Your task to perform on an android device: What's the latest news in space exploration? Image 0: 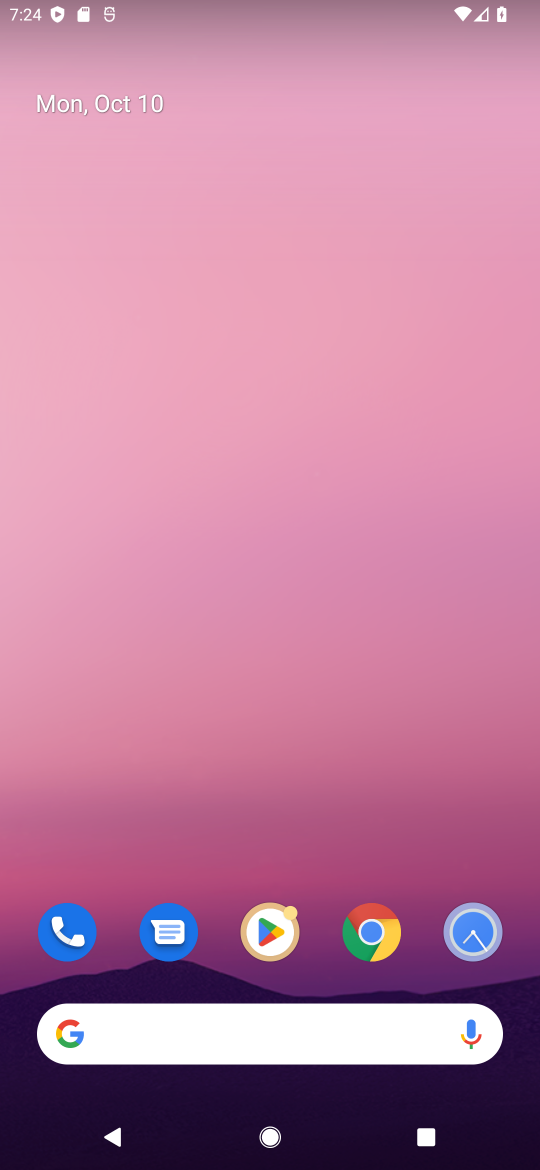
Step 0: drag from (329, 989) to (271, 117)
Your task to perform on an android device: What's the latest news in space exploration? Image 1: 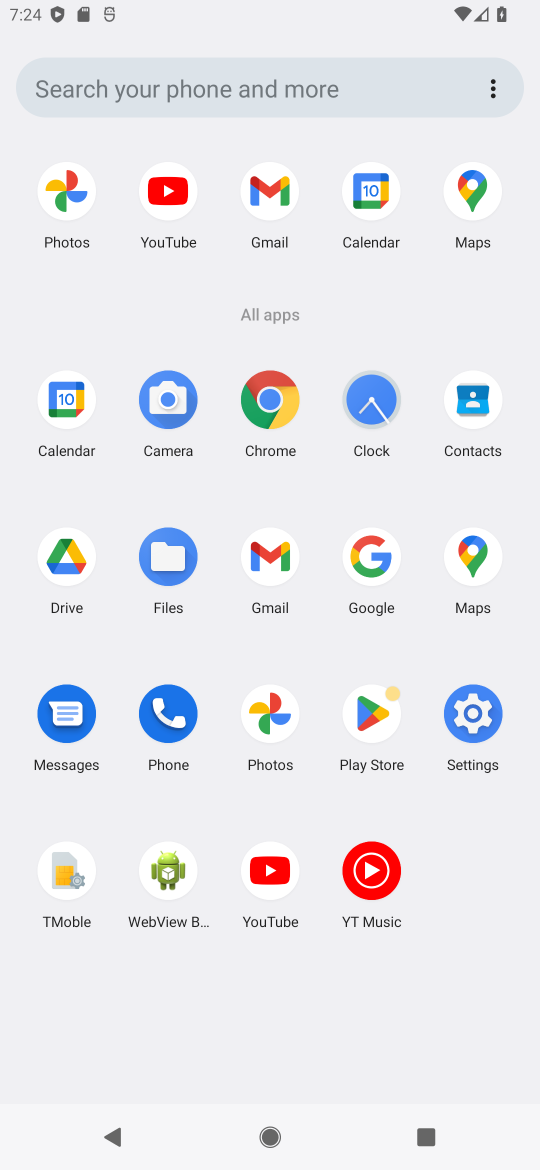
Step 1: click (270, 407)
Your task to perform on an android device: What's the latest news in space exploration? Image 2: 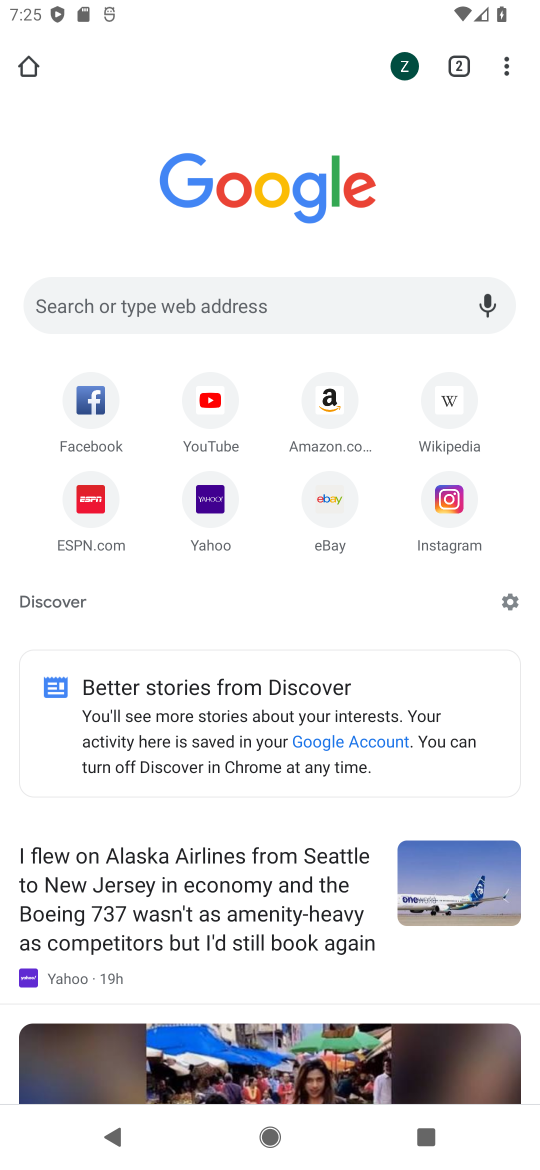
Step 2: click (351, 297)
Your task to perform on an android device: What's the latest news in space exploration? Image 3: 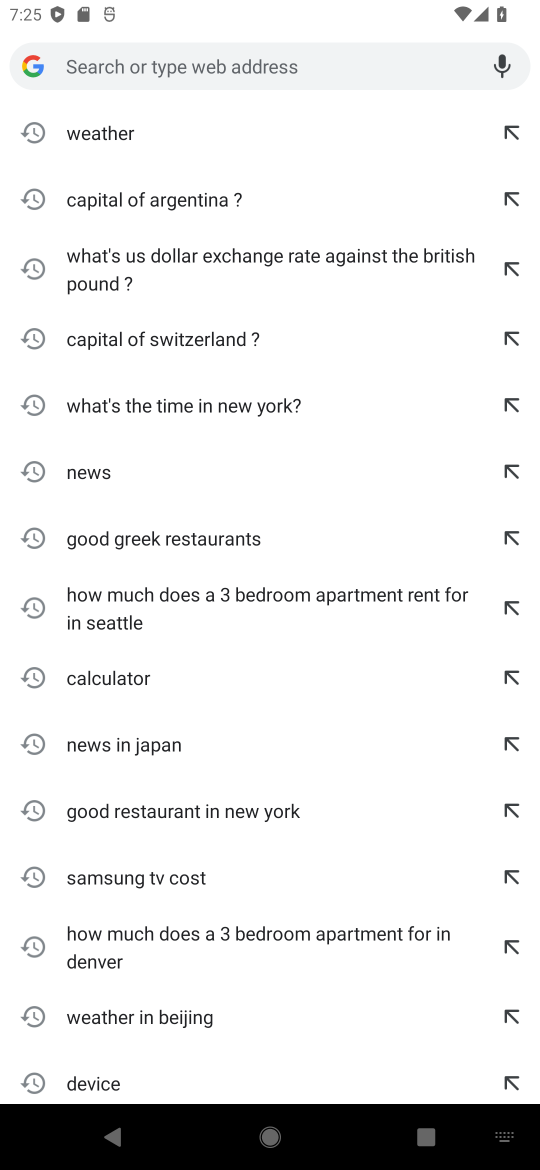
Step 3: type "What's the latest news in space exploration?"
Your task to perform on an android device: What's the latest news in space exploration? Image 4: 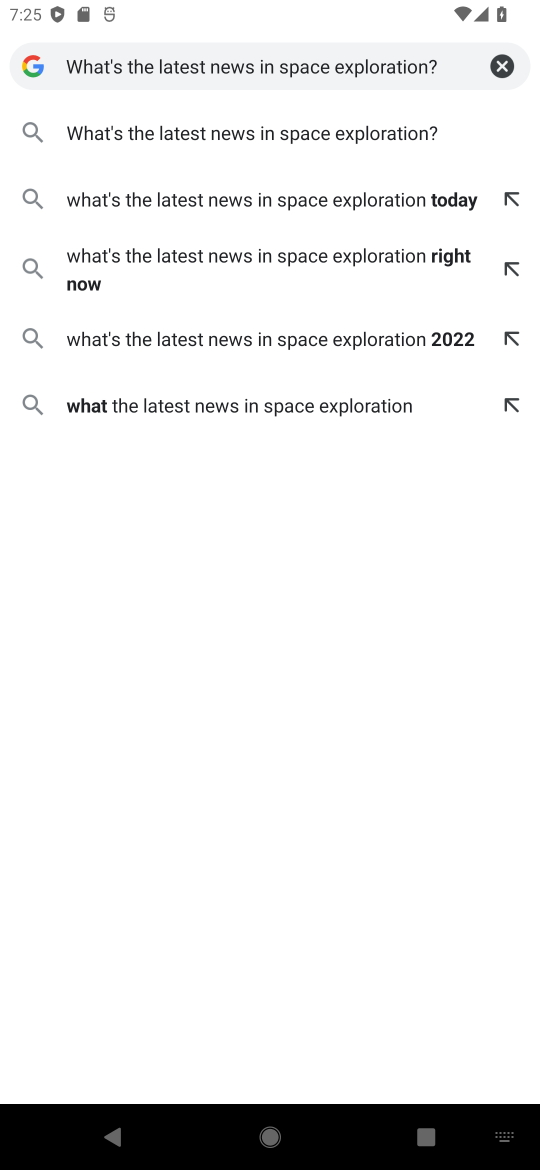
Step 4: press enter
Your task to perform on an android device: What's the latest news in space exploration? Image 5: 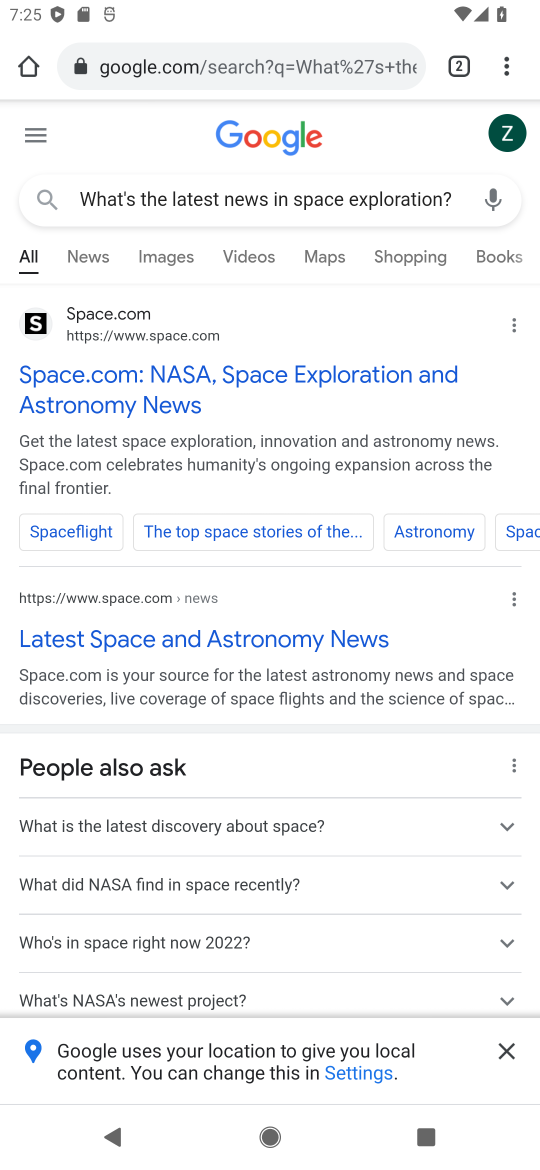
Step 5: click (59, 370)
Your task to perform on an android device: What's the latest news in space exploration? Image 6: 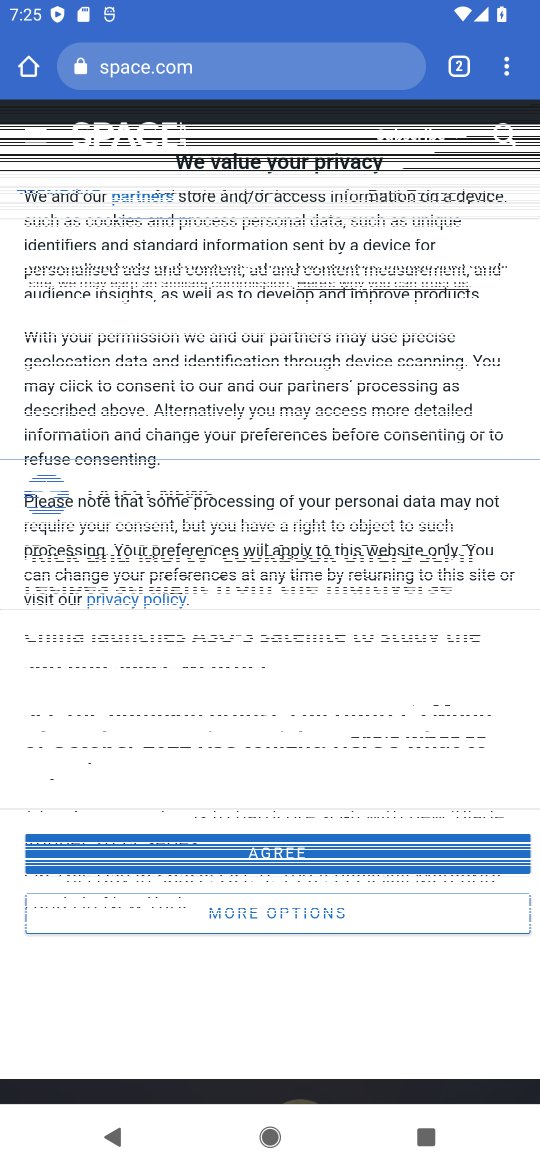
Step 6: task complete